Your task to perform on an android device: open app "Nova Launcher" (install if not already installed) and enter user name: "haggard@gmail.com" and password: "sadder" Image 0: 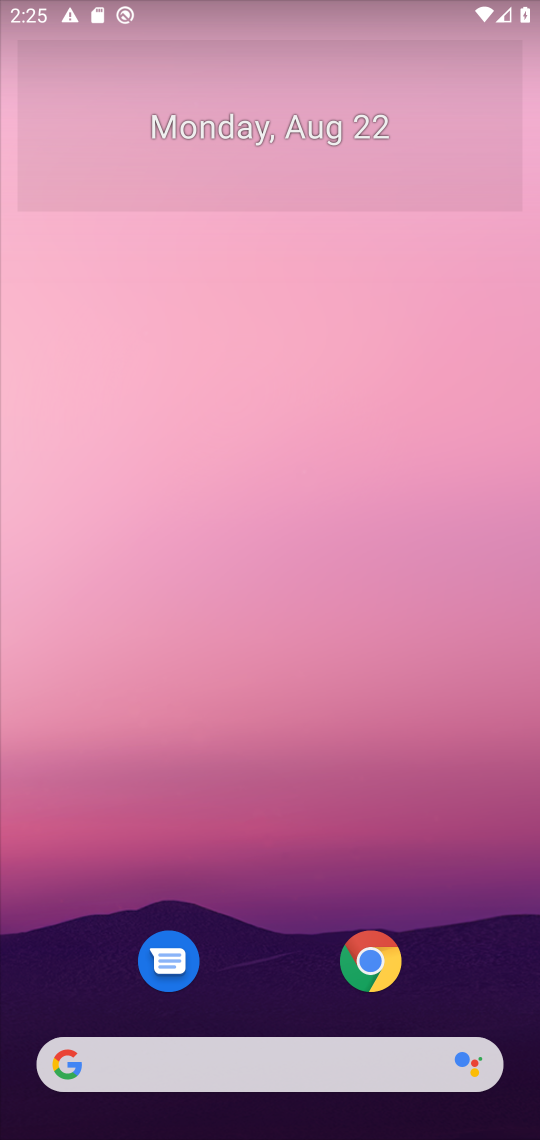
Step 0: press home button
Your task to perform on an android device: open app "Nova Launcher" (install if not already installed) and enter user name: "haggard@gmail.com" and password: "sadder" Image 1: 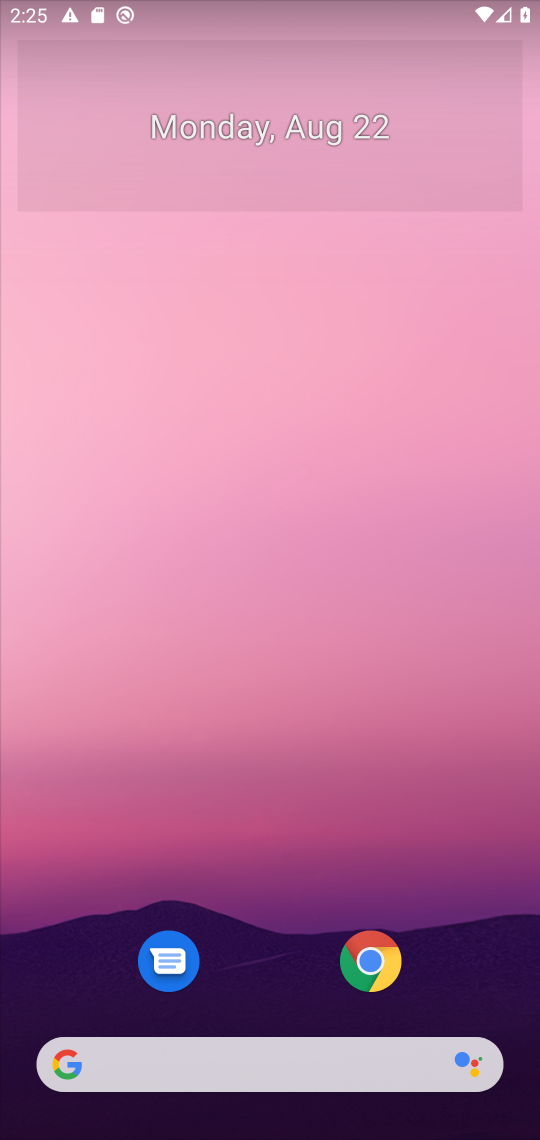
Step 1: drag from (468, 975) to (472, 128)
Your task to perform on an android device: open app "Nova Launcher" (install if not already installed) and enter user name: "haggard@gmail.com" and password: "sadder" Image 2: 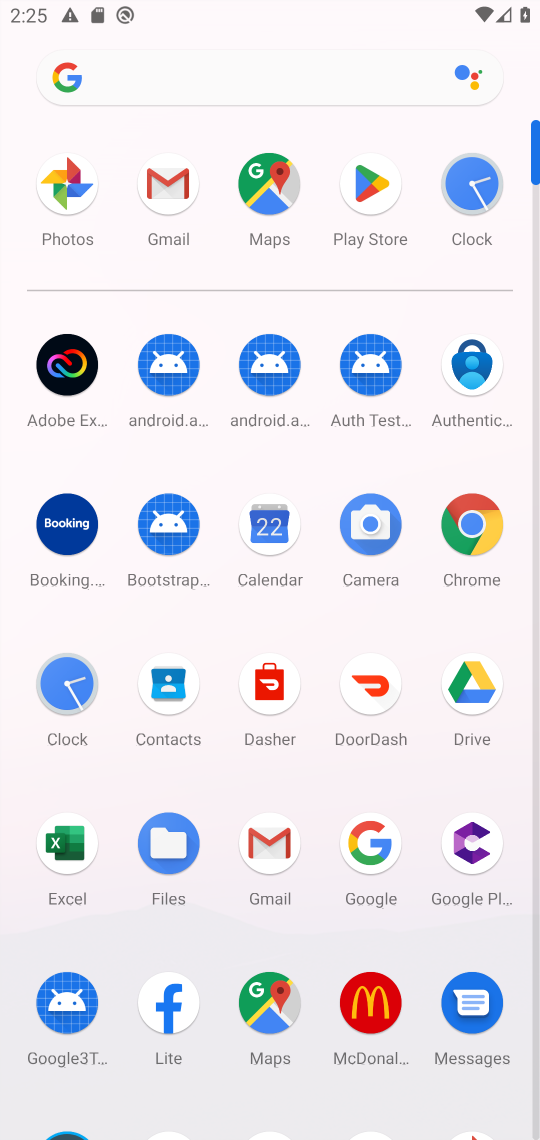
Step 2: click (367, 193)
Your task to perform on an android device: open app "Nova Launcher" (install if not already installed) and enter user name: "haggard@gmail.com" and password: "sadder" Image 3: 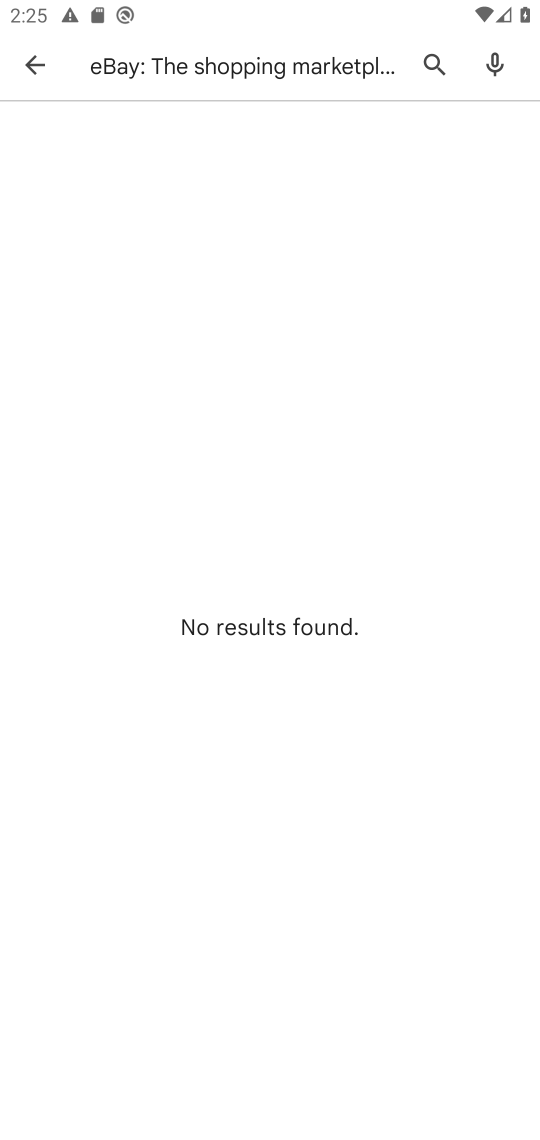
Step 3: press back button
Your task to perform on an android device: open app "Nova Launcher" (install if not already installed) and enter user name: "haggard@gmail.com" and password: "sadder" Image 4: 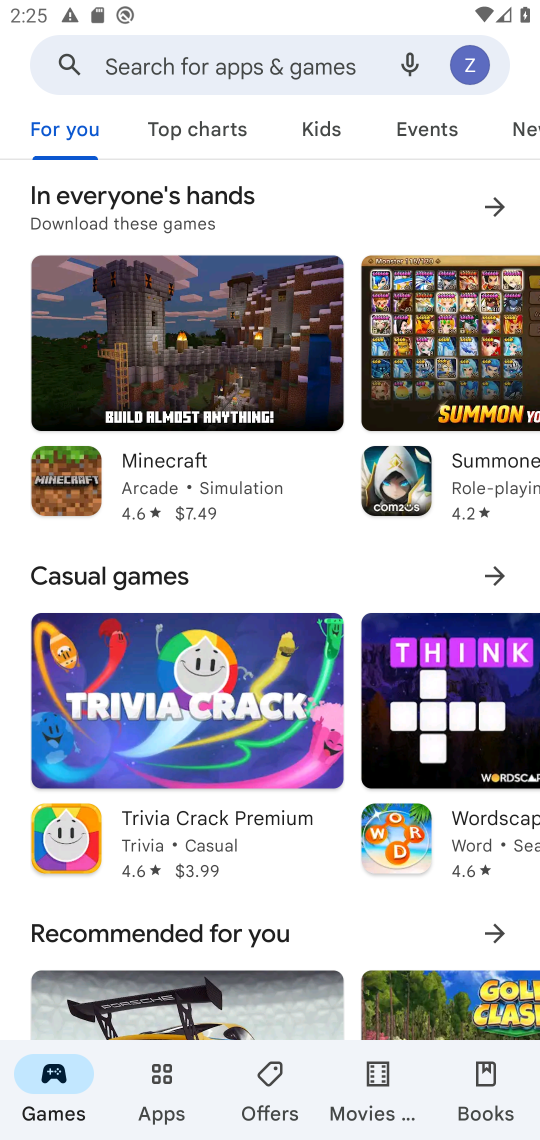
Step 4: click (235, 66)
Your task to perform on an android device: open app "Nova Launcher" (install if not already installed) and enter user name: "haggard@gmail.com" and password: "sadder" Image 5: 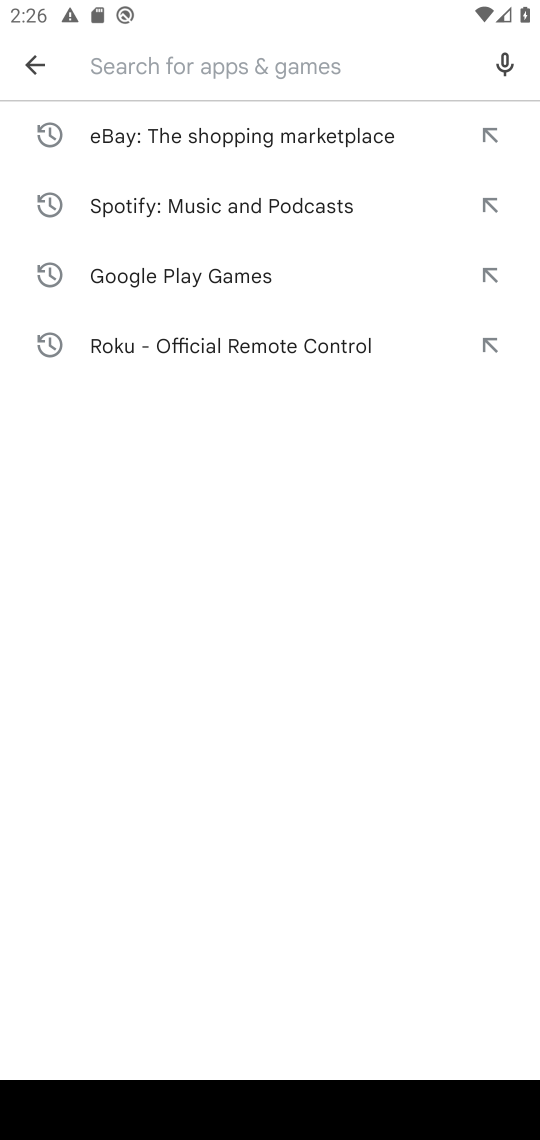
Step 5: type "Nova Launcher"
Your task to perform on an android device: open app "Nova Launcher" (install if not already installed) and enter user name: "haggard@gmail.com" and password: "sadder" Image 6: 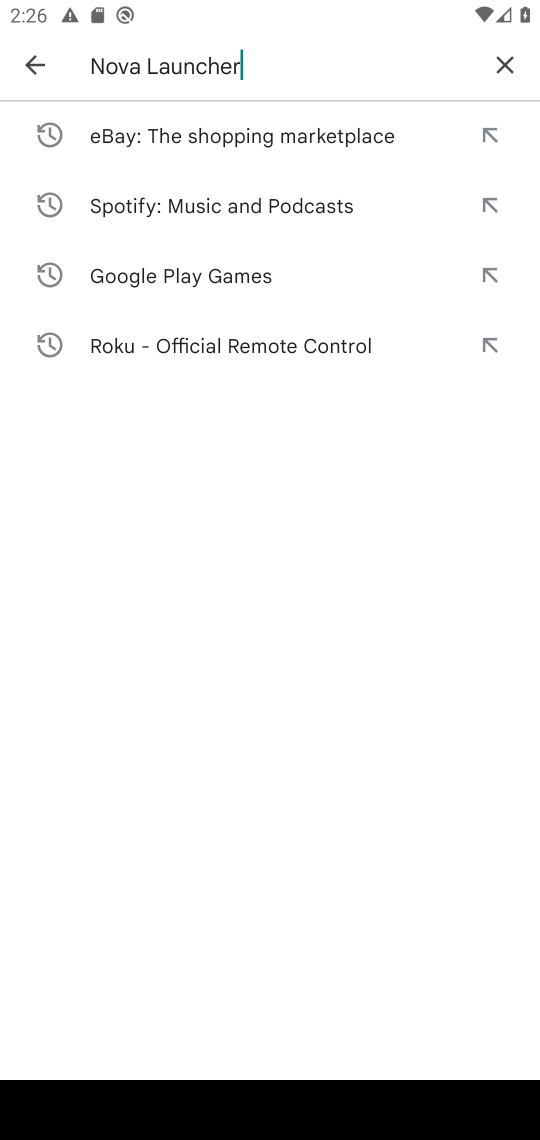
Step 6: press enter
Your task to perform on an android device: open app "Nova Launcher" (install if not already installed) and enter user name: "haggard@gmail.com" and password: "sadder" Image 7: 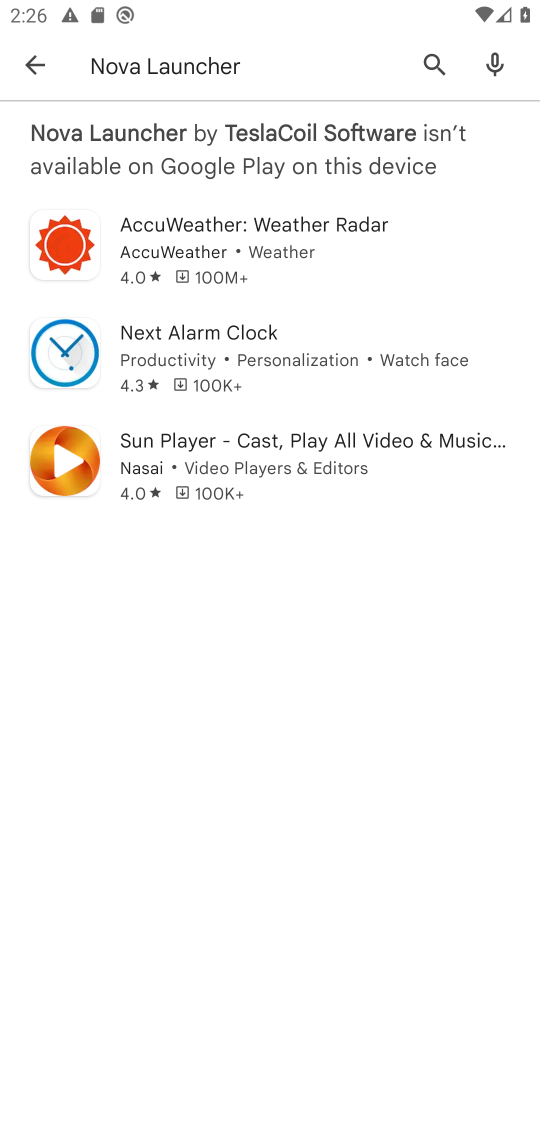
Step 7: task complete